Your task to perform on an android device: change the clock display to analog Image 0: 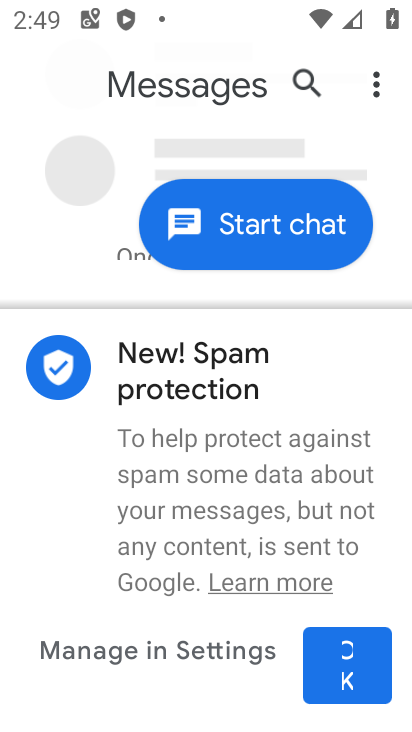
Step 0: press home button
Your task to perform on an android device: change the clock display to analog Image 1: 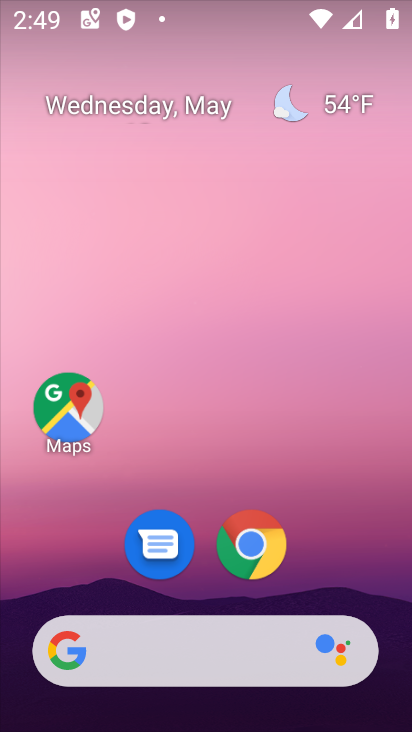
Step 1: drag from (309, 560) to (311, 164)
Your task to perform on an android device: change the clock display to analog Image 2: 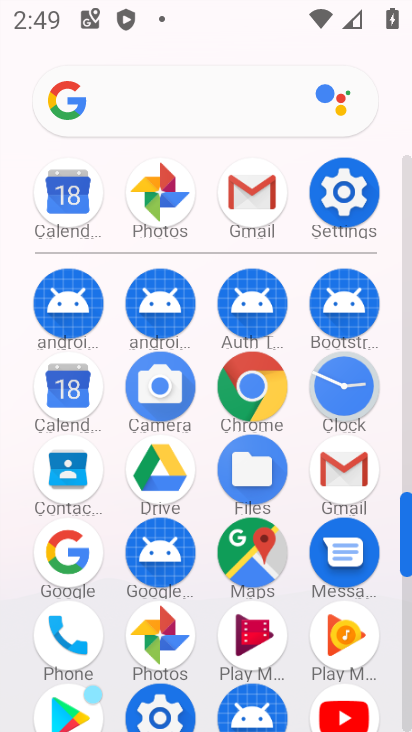
Step 2: click (332, 384)
Your task to perform on an android device: change the clock display to analog Image 3: 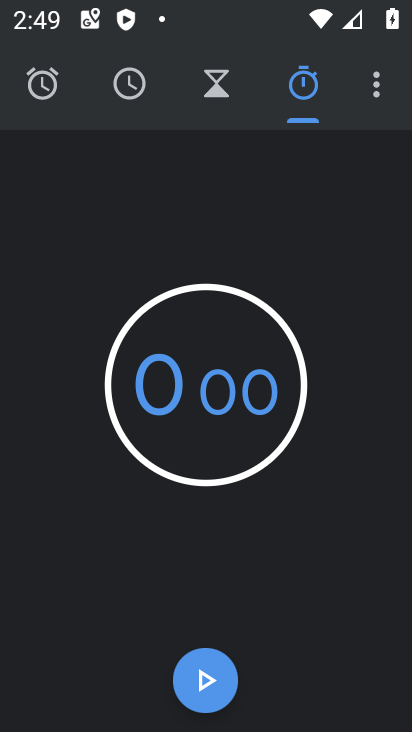
Step 3: click (362, 69)
Your task to perform on an android device: change the clock display to analog Image 4: 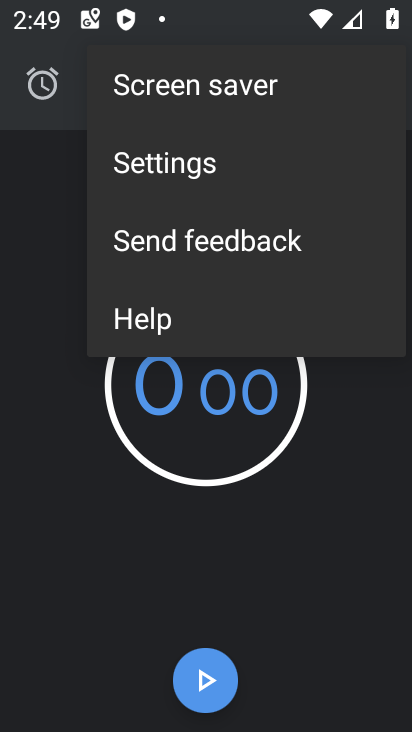
Step 4: click (272, 162)
Your task to perform on an android device: change the clock display to analog Image 5: 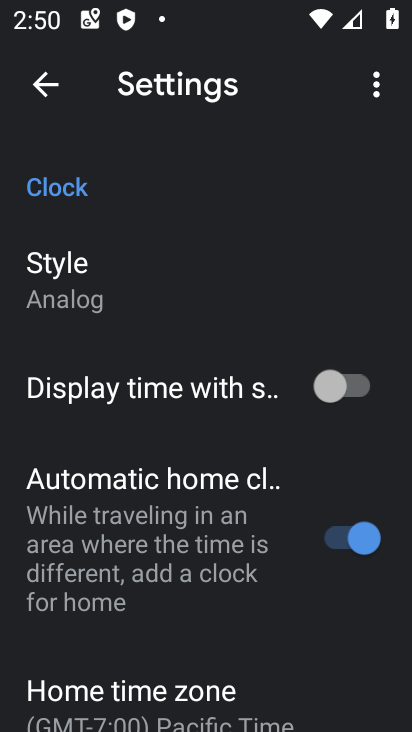
Step 5: click (171, 265)
Your task to perform on an android device: change the clock display to analog Image 6: 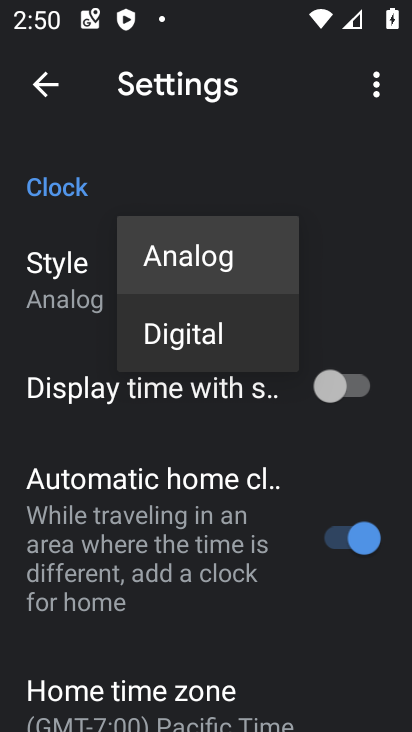
Step 6: task complete